Your task to perform on an android device: Open Google Chrome and open the bookmarks view Image 0: 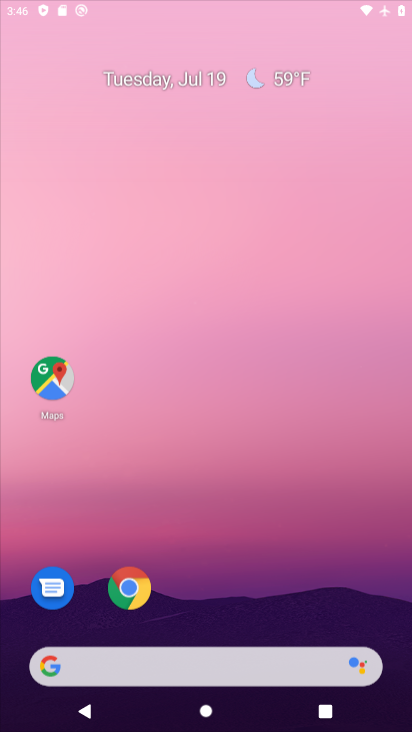
Step 0: press home button
Your task to perform on an android device: Open Google Chrome and open the bookmarks view Image 1: 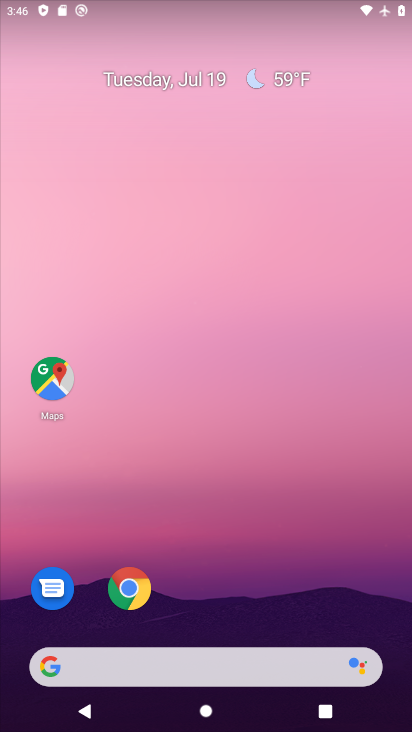
Step 1: drag from (302, 3) to (182, 15)
Your task to perform on an android device: Open Google Chrome and open the bookmarks view Image 2: 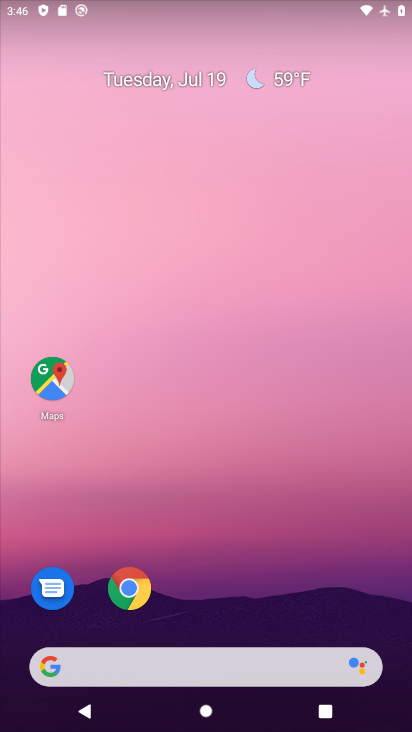
Step 2: drag from (234, 638) to (263, 116)
Your task to perform on an android device: Open Google Chrome and open the bookmarks view Image 3: 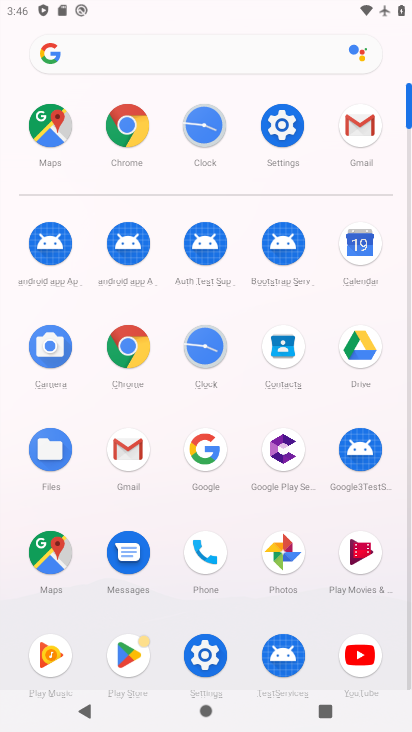
Step 3: click (132, 137)
Your task to perform on an android device: Open Google Chrome and open the bookmarks view Image 4: 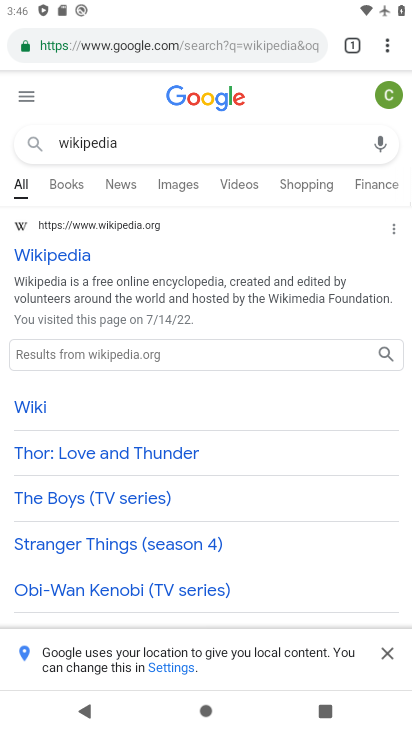
Step 4: task complete